Your task to perform on an android device: Check the news Image 0: 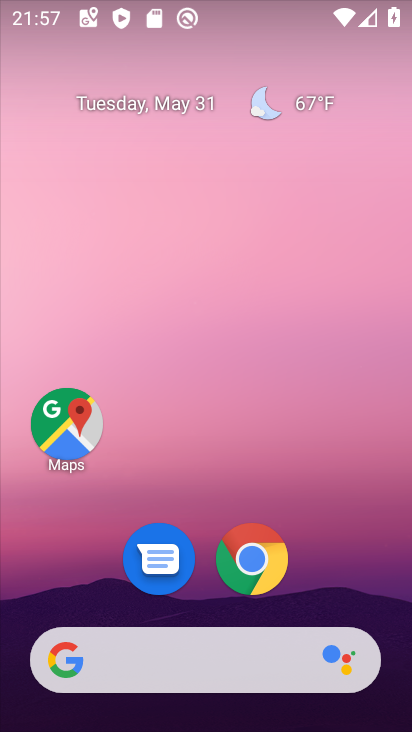
Step 0: drag from (323, 570) to (341, 101)
Your task to perform on an android device: Check the news Image 1: 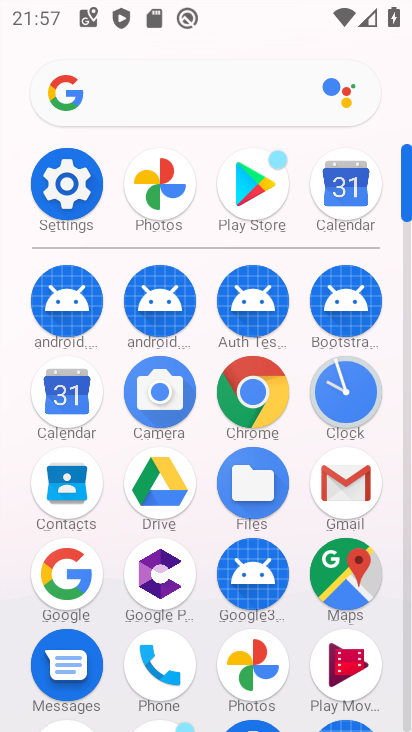
Step 1: click (59, 581)
Your task to perform on an android device: Check the news Image 2: 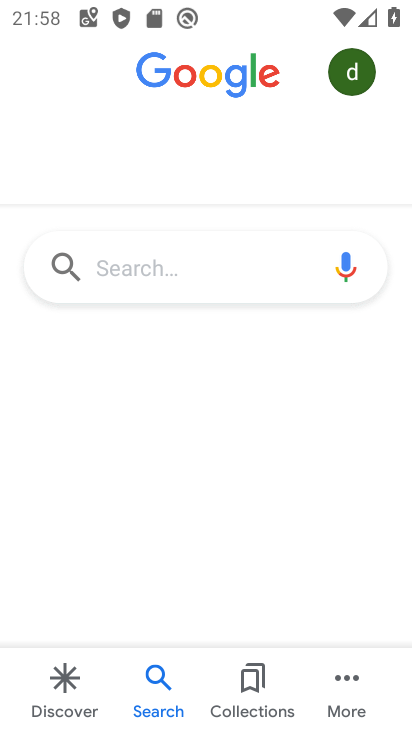
Step 2: click (207, 264)
Your task to perform on an android device: Check the news Image 3: 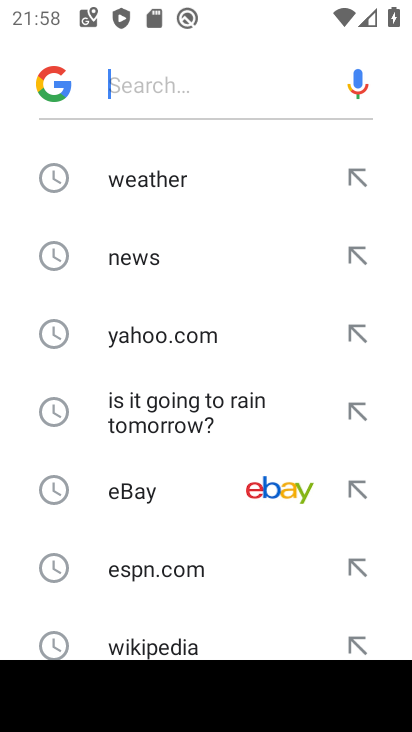
Step 3: click (174, 258)
Your task to perform on an android device: Check the news Image 4: 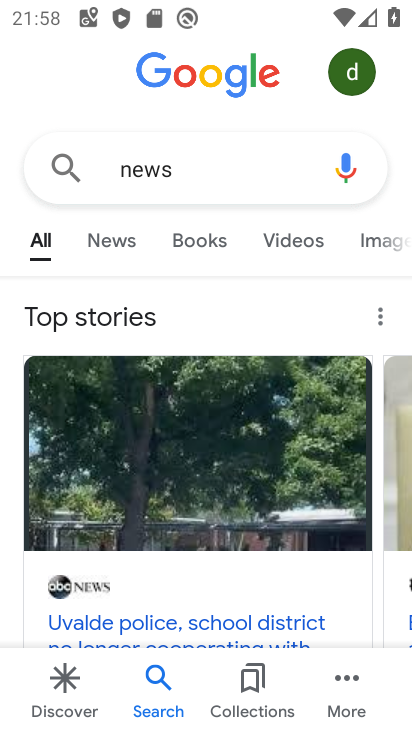
Step 4: task complete